Your task to perform on an android device: Open the calendar and show me this week's events Image 0: 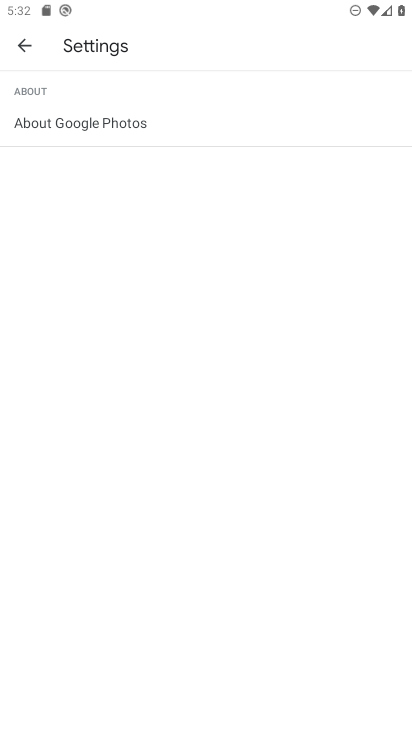
Step 0: press home button
Your task to perform on an android device: Open the calendar and show me this week's events Image 1: 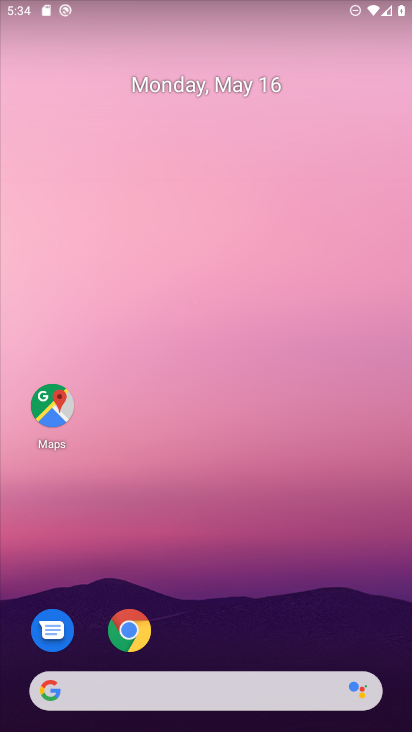
Step 1: drag from (275, 601) to (287, 82)
Your task to perform on an android device: Open the calendar and show me this week's events Image 2: 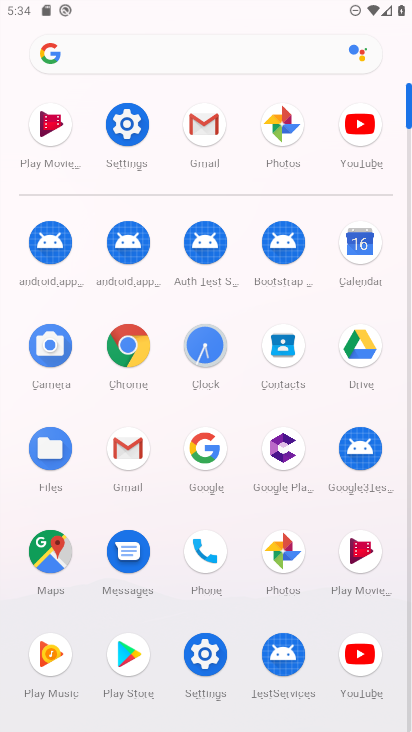
Step 2: drag from (331, 279) to (325, 46)
Your task to perform on an android device: Open the calendar and show me this week's events Image 3: 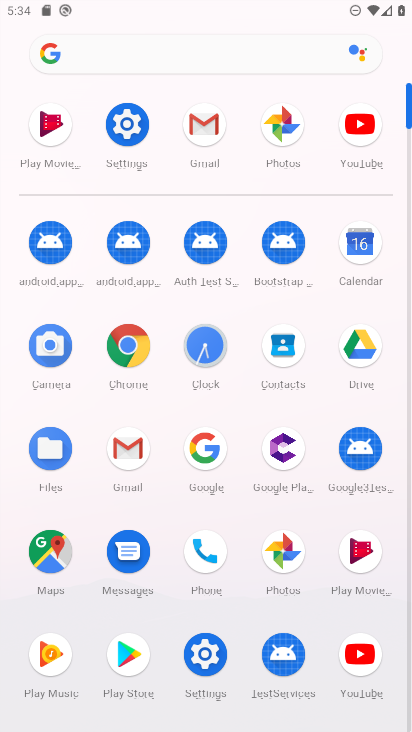
Step 3: click (351, 264)
Your task to perform on an android device: Open the calendar and show me this week's events Image 4: 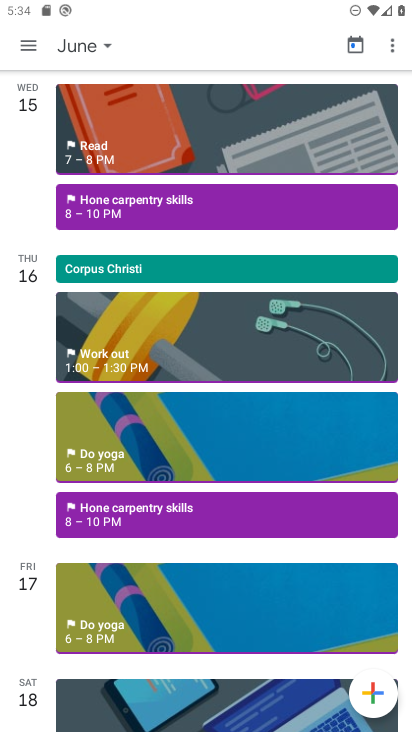
Step 4: click (112, 43)
Your task to perform on an android device: Open the calendar and show me this week's events Image 5: 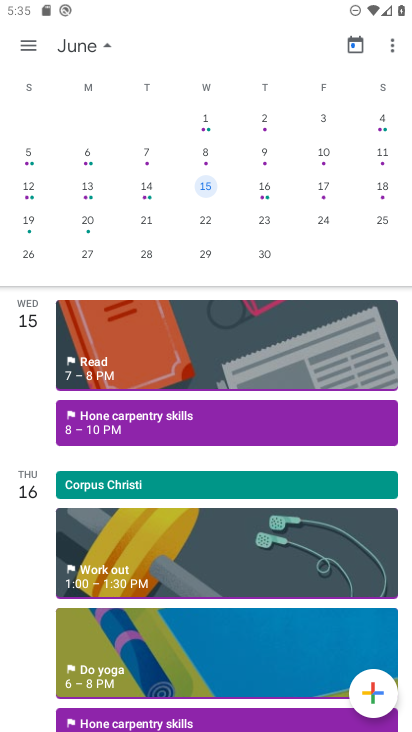
Step 5: drag from (110, 177) to (402, 184)
Your task to perform on an android device: Open the calendar and show me this week's events Image 6: 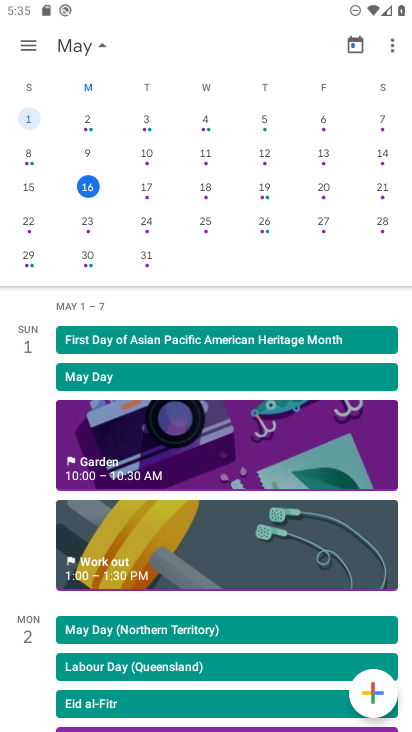
Step 6: click (252, 190)
Your task to perform on an android device: Open the calendar and show me this week's events Image 7: 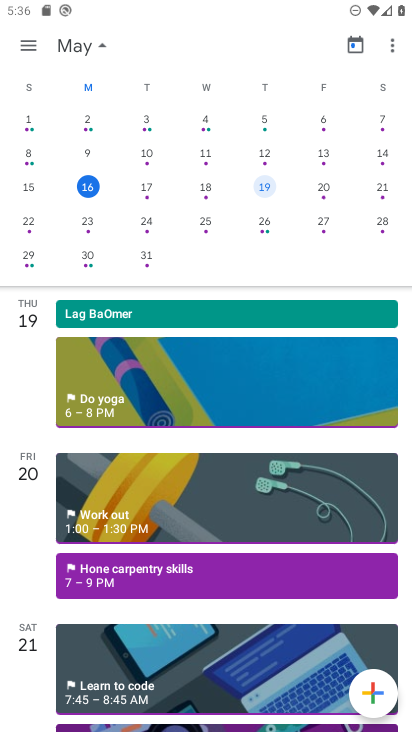
Step 7: click (99, 48)
Your task to perform on an android device: Open the calendar and show me this week's events Image 8: 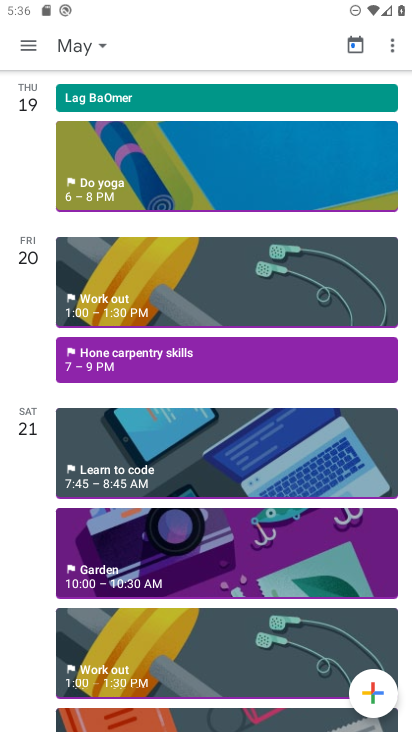
Step 8: task complete